Your task to perform on an android device: Show me popular games on the Play Store Image 0: 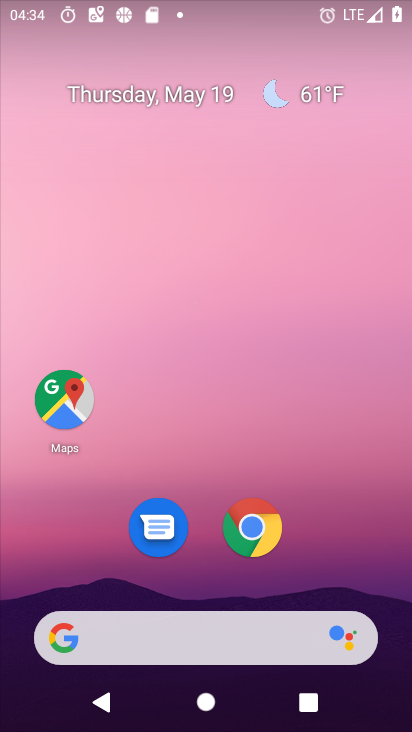
Step 0: drag from (162, 566) to (205, 156)
Your task to perform on an android device: Show me popular games on the Play Store Image 1: 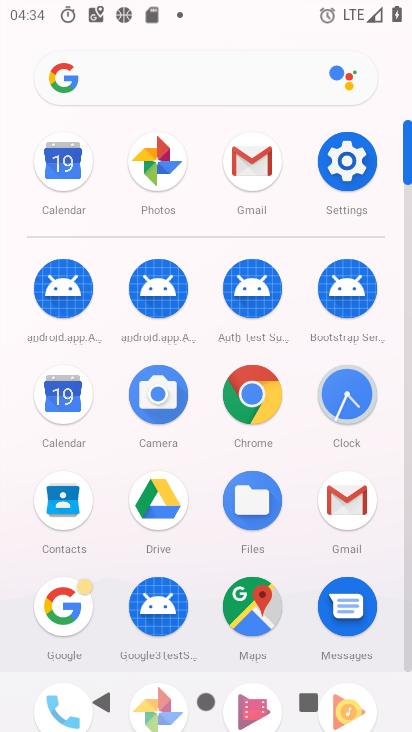
Step 1: drag from (130, 611) to (174, 101)
Your task to perform on an android device: Show me popular games on the Play Store Image 2: 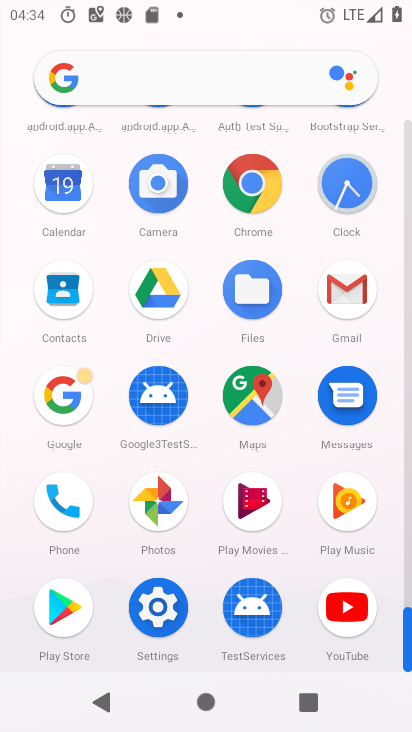
Step 2: click (65, 607)
Your task to perform on an android device: Show me popular games on the Play Store Image 3: 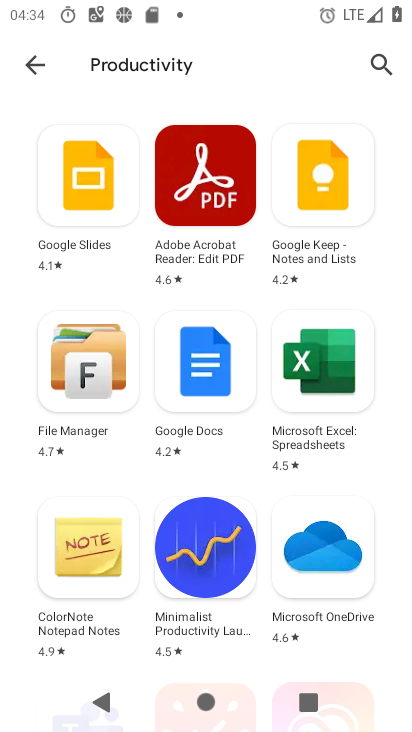
Step 3: click (40, 52)
Your task to perform on an android device: Show me popular games on the Play Store Image 4: 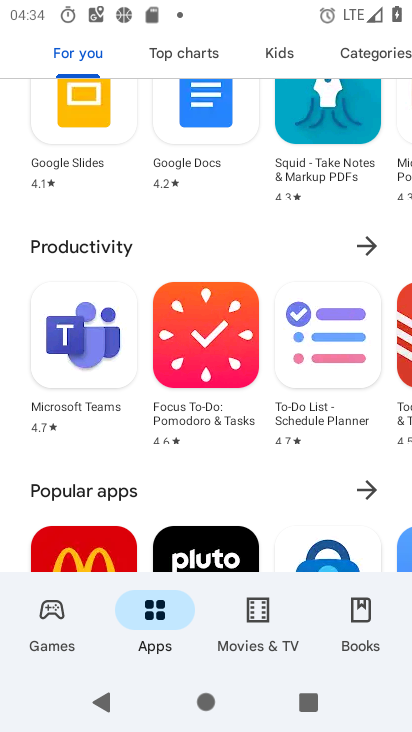
Step 4: click (35, 637)
Your task to perform on an android device: Show me popular games on the Play Store Image 5: 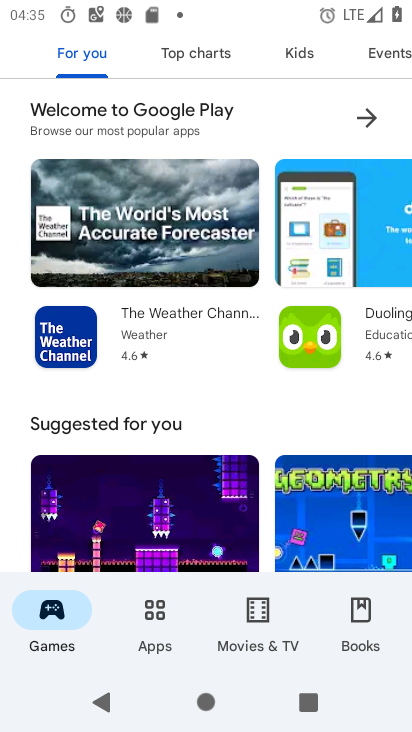
Step 5: drag from (194, 483) to (332, 10)
Your task to perform on an android device: Show me popular games on the Play Store Image 6: 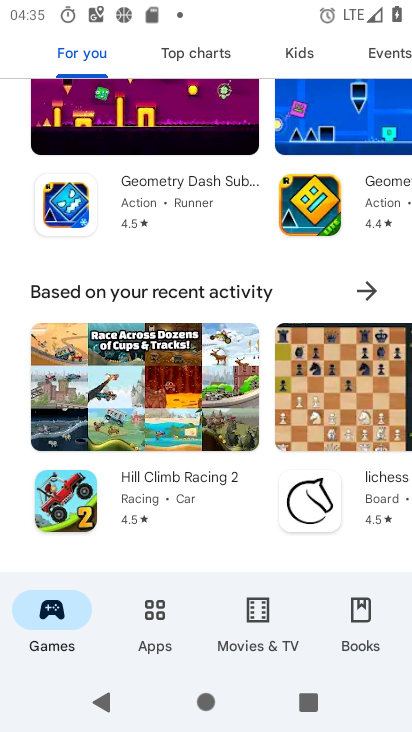
Step 6: drag from (234, 471) to (336, 9)
Your task to perform on an android device: Show me popular games on the Play Store Image 7: 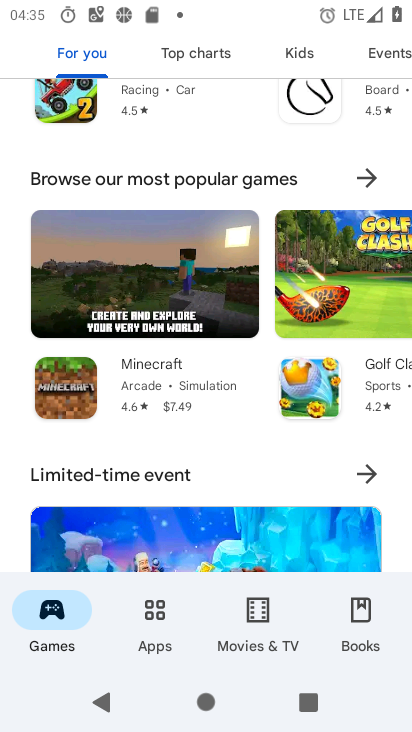
Step 7: click (352, 164)
Your task to perform on an android device: Show me popular games on the Play Store Image 8: 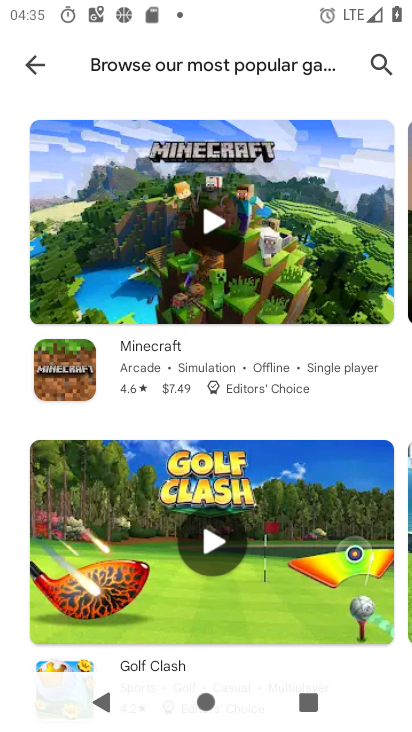
Step 8: task complete